Your task to perform on an android device: Show me popular videos on Youtube Image 0: 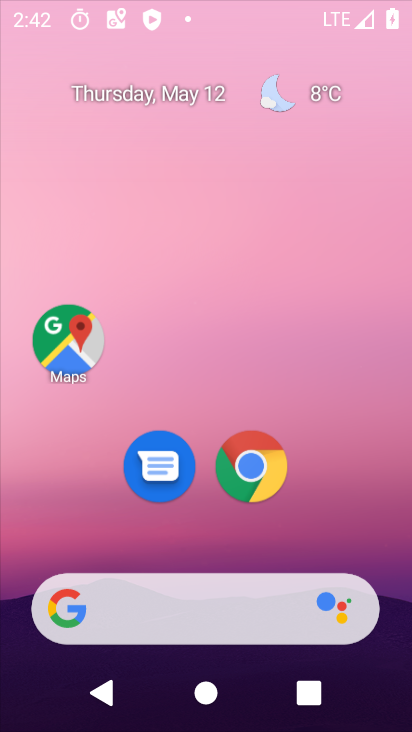
Step 0: click (112, 95)
Your task to perform on an android device: Show me popular videos on Youtube Image 1: 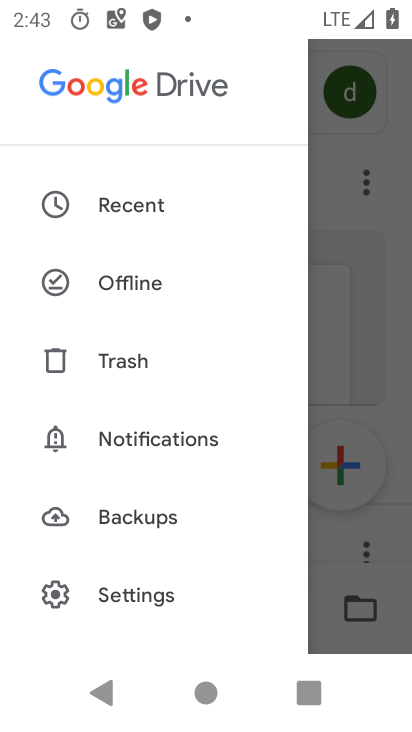
Step 1: press home button
Your task to perform on an android device: Show me popular videos on Youtube Image 2: 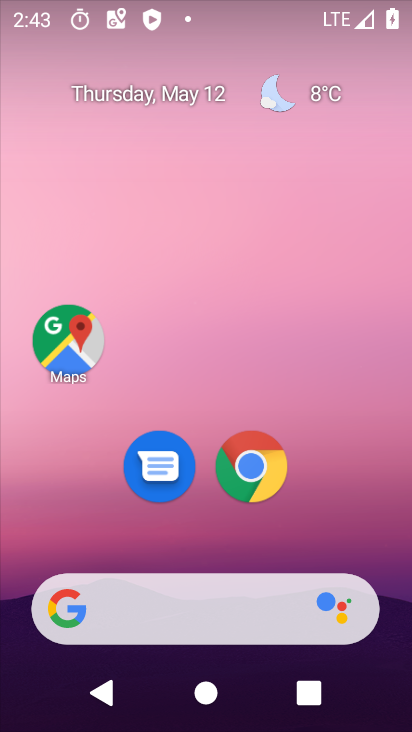
Step 2: drag from (202, 430) to (196, 130)
Your task to perform on an android device: Show me popular videos on Youtube Image 3: 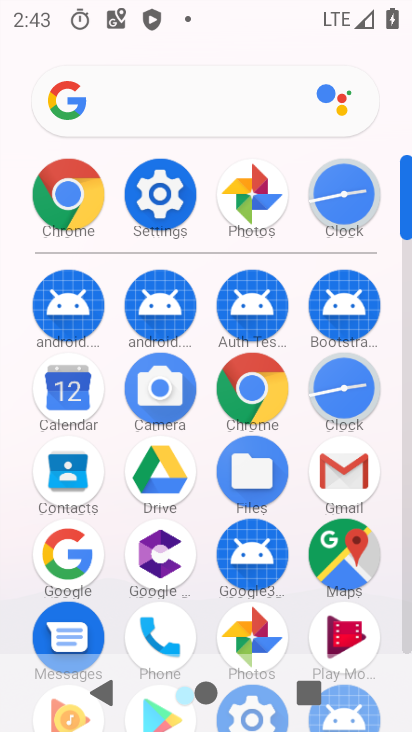
Step 3: drag from (294, 667) to (277, 254)
Your task to perform on an android device: Show me popular videos on Youtube Image 4: 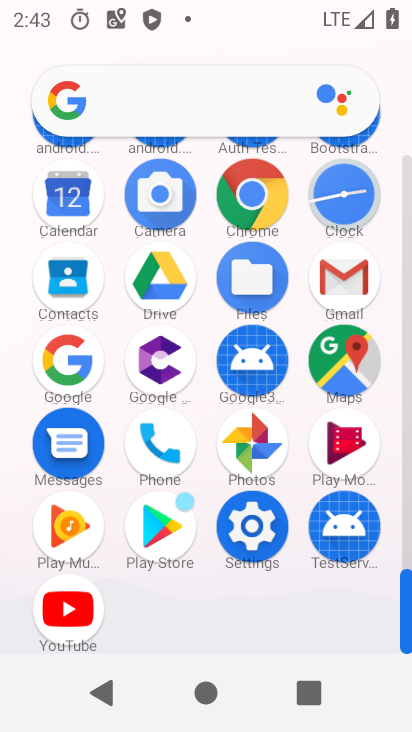
Step 4: click (57, 625)
Your task to perform on an android device: Show me popular videos on Youtube Image 5: 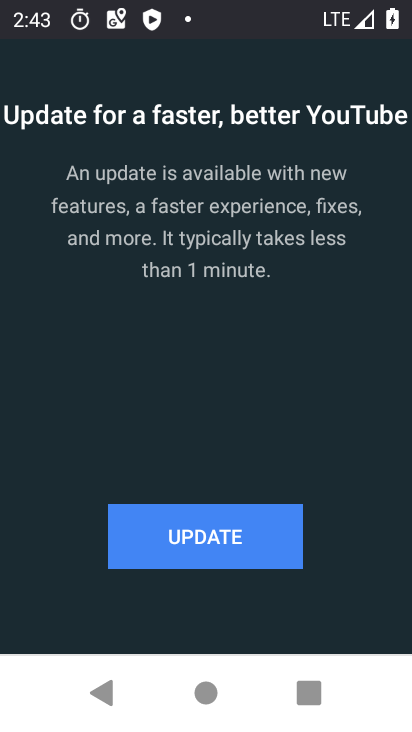
Step 5: click (158, 544)
Your task to perform on an android device: Show me popular videos on Youtube Image 6: 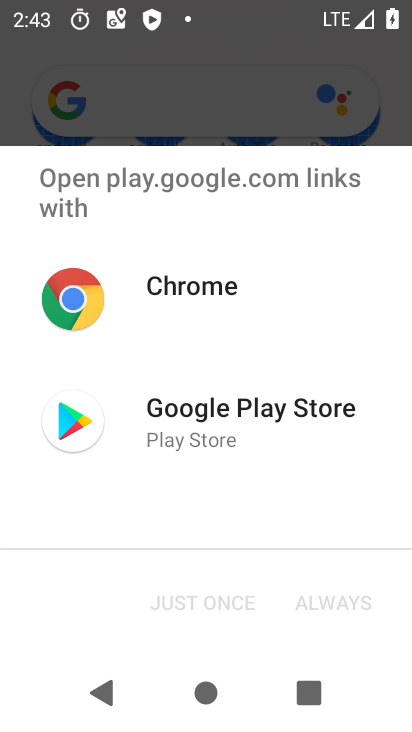
Step 6: click (263, 366)
Your task to perform on an android device: Show me popular videos on Youtube Image 7: 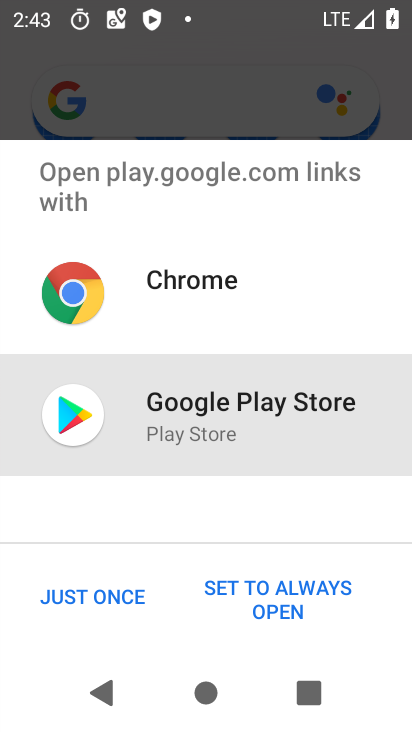
Step 7: click (79, 598)
Your task to perform on an android device: Show me popular videos on Youtube Image 8: 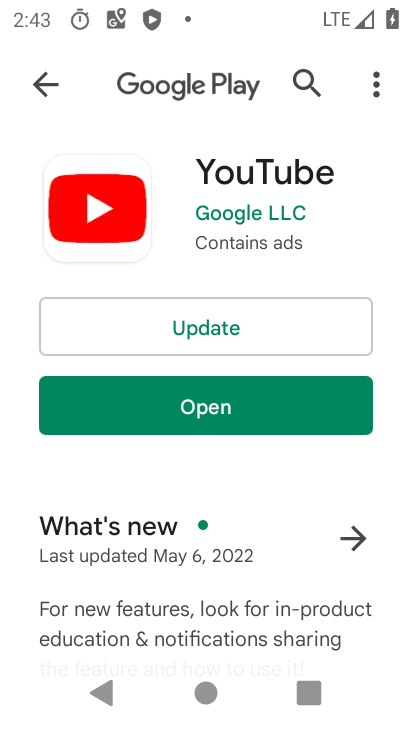
Step 8: click (217, 313)
Your task to perform on an android device: Show me popular videos on Youtube Image 9: 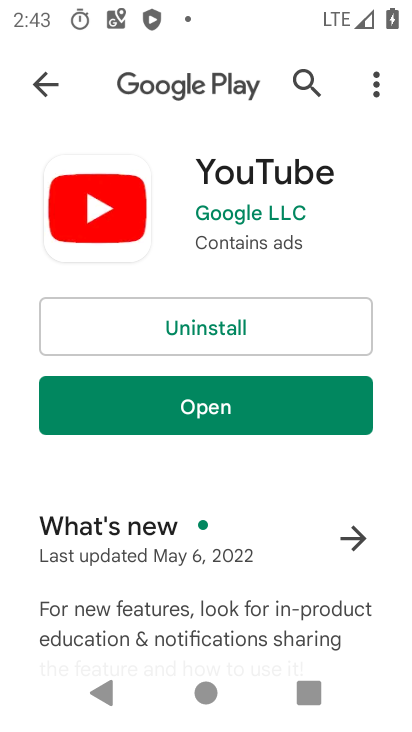
Step 9: click (228, 426)
Your task to perform on an android device: Show me popular videos on Youtube Image 10: 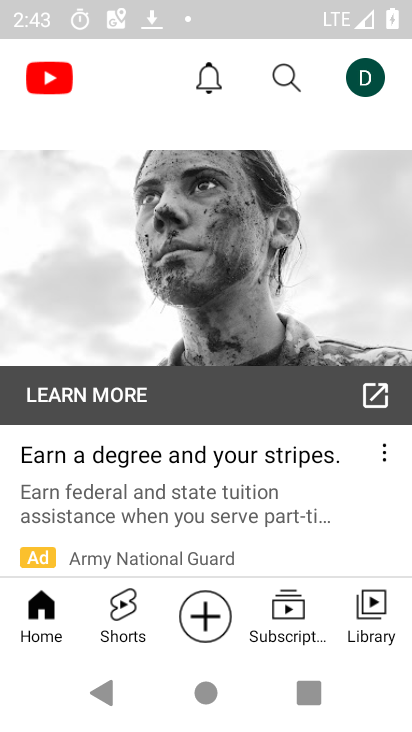
Step 10: drag from (106, 250) to (106, 426)
Your task to perform on an android device: Show me popular videos on Youtube Image 11: 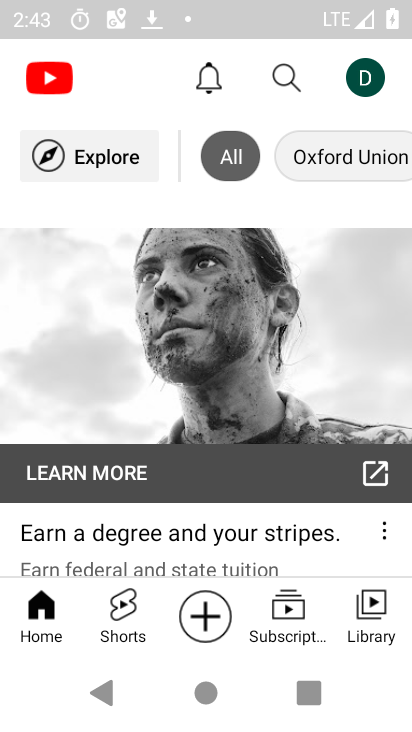
Step 11: click (78, 157)
Your task to perform on an android device: Show me popular videos on Youtube Image 12: 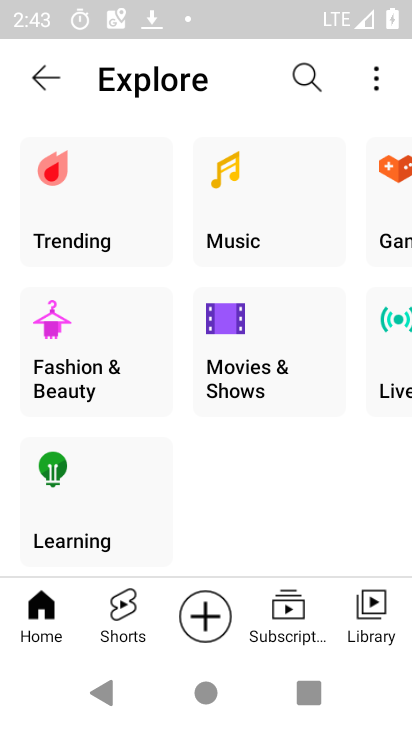
Step 12: click (78, 157)
Your task to perform on an android device: Show me popular videos on Youtube Image 13: 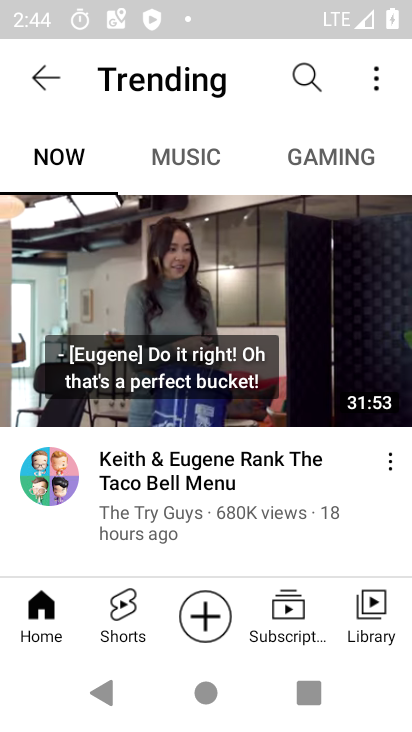
Step 13: task complete